Your task to perform on an android device: Open notification settings Image 0: 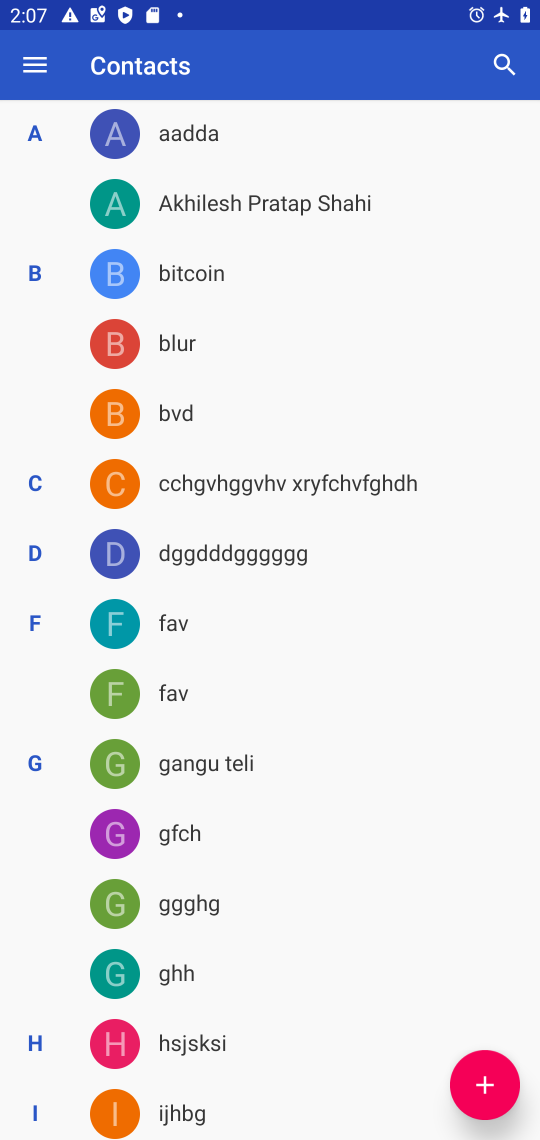
Step 0: press home button
Your task to perform on an android device: Open notification settings Image 1: 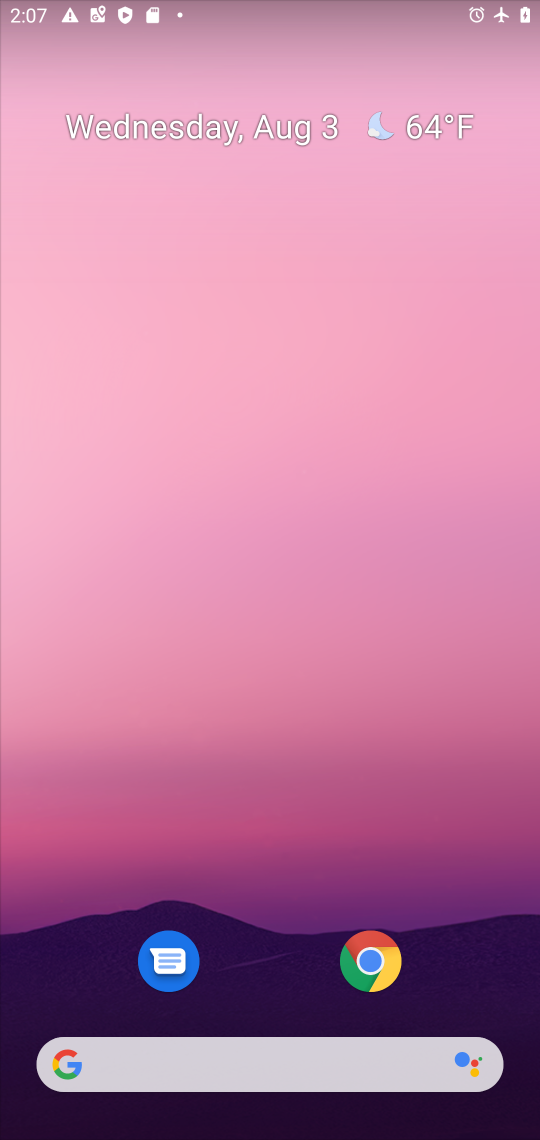
Step 1: drag from (272, 966) to (340, 12)
Your task to perform on an android device: Open notification settings Image 2: 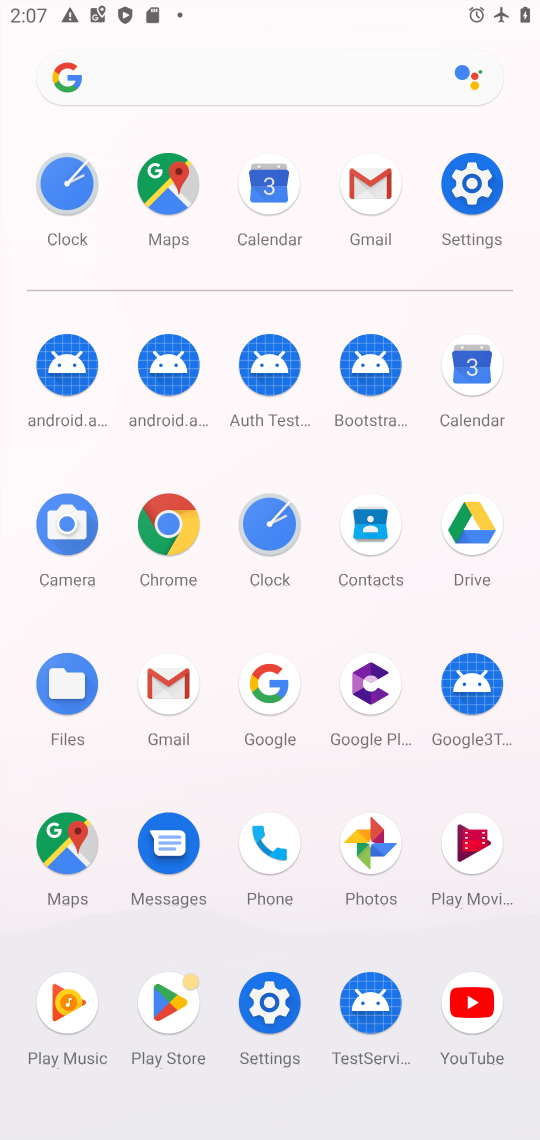
Step 2: click (467, 218)
Your task to perform on an android device: Open notification settings Image 3: 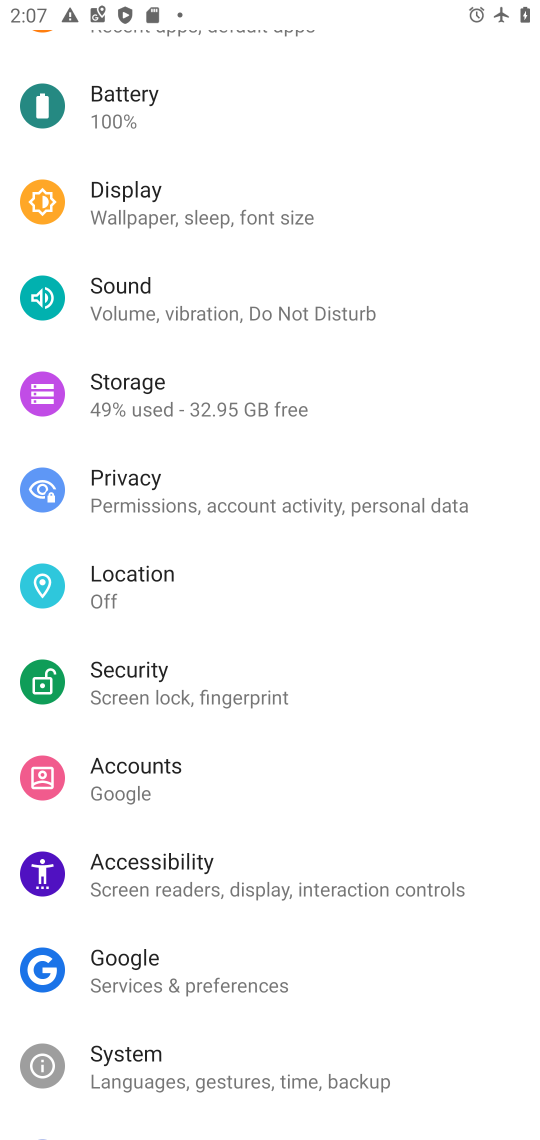
Step 3: drag from (439, 217) to (461, 661)
Your task to perform on an android device: Open notification settings Image 4: 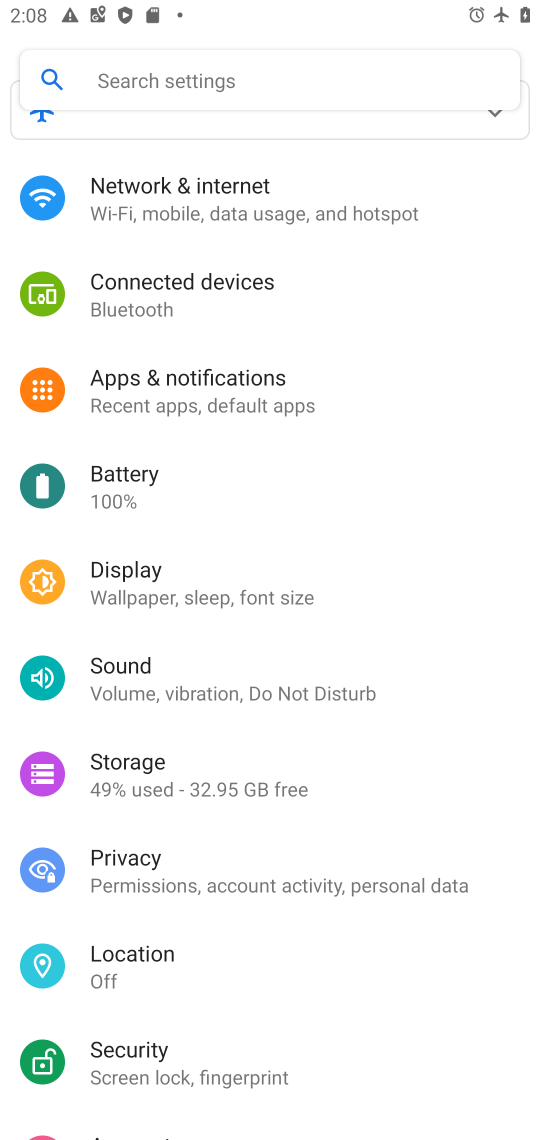
Step 4: click (163, 396)
Your task to perform on an android device: Open notification settings Image 5: 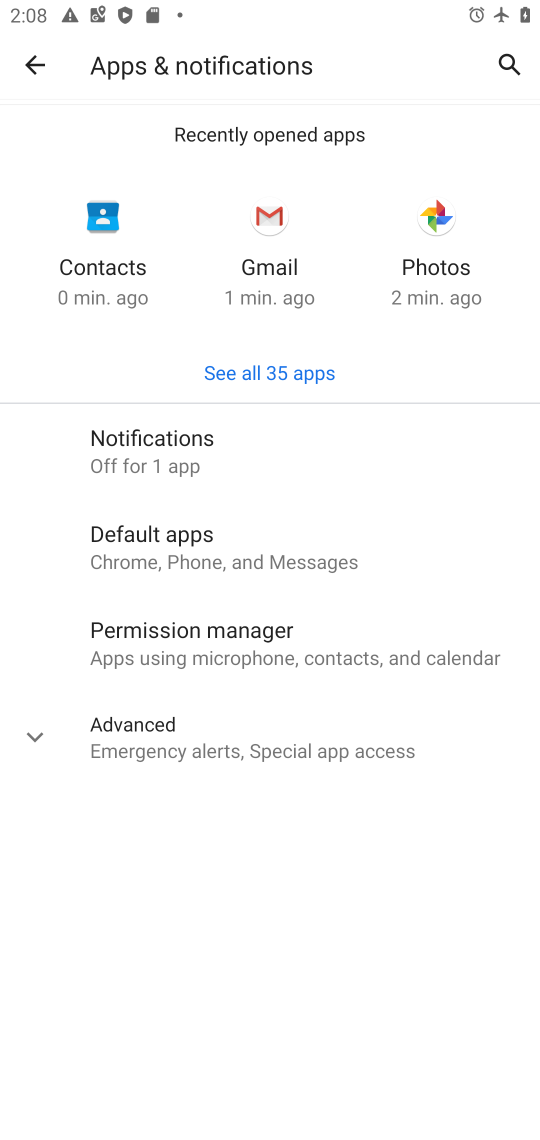
Step 5: click (131, 473)
Your task to perform on an android device: Open notification settings Image 6: 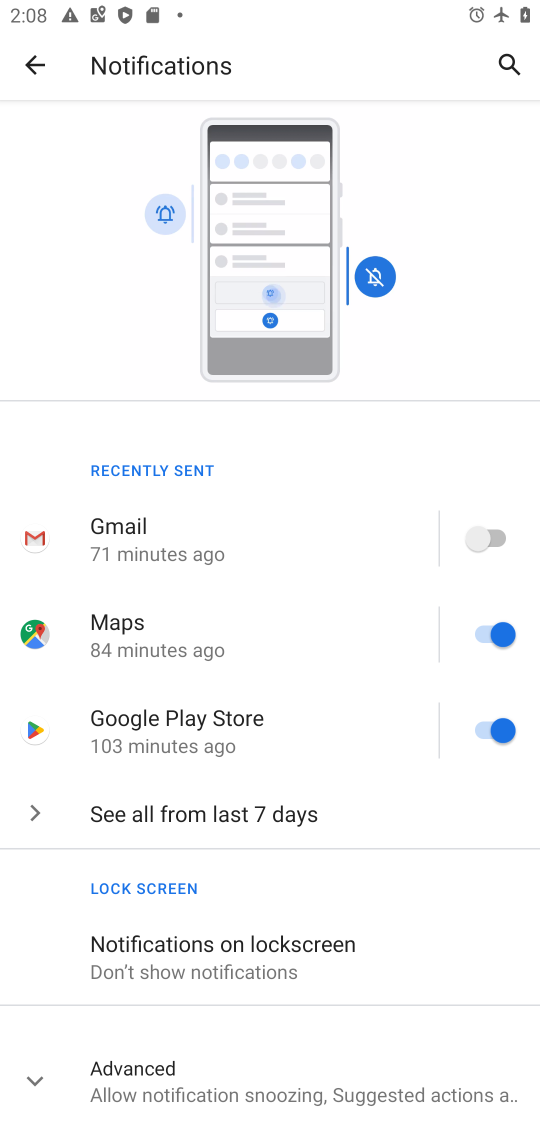
Step 6: task complete